Your task to perform on an android device: open app "DoorDash - Food Delivery" (install if not already installed) Image 0: 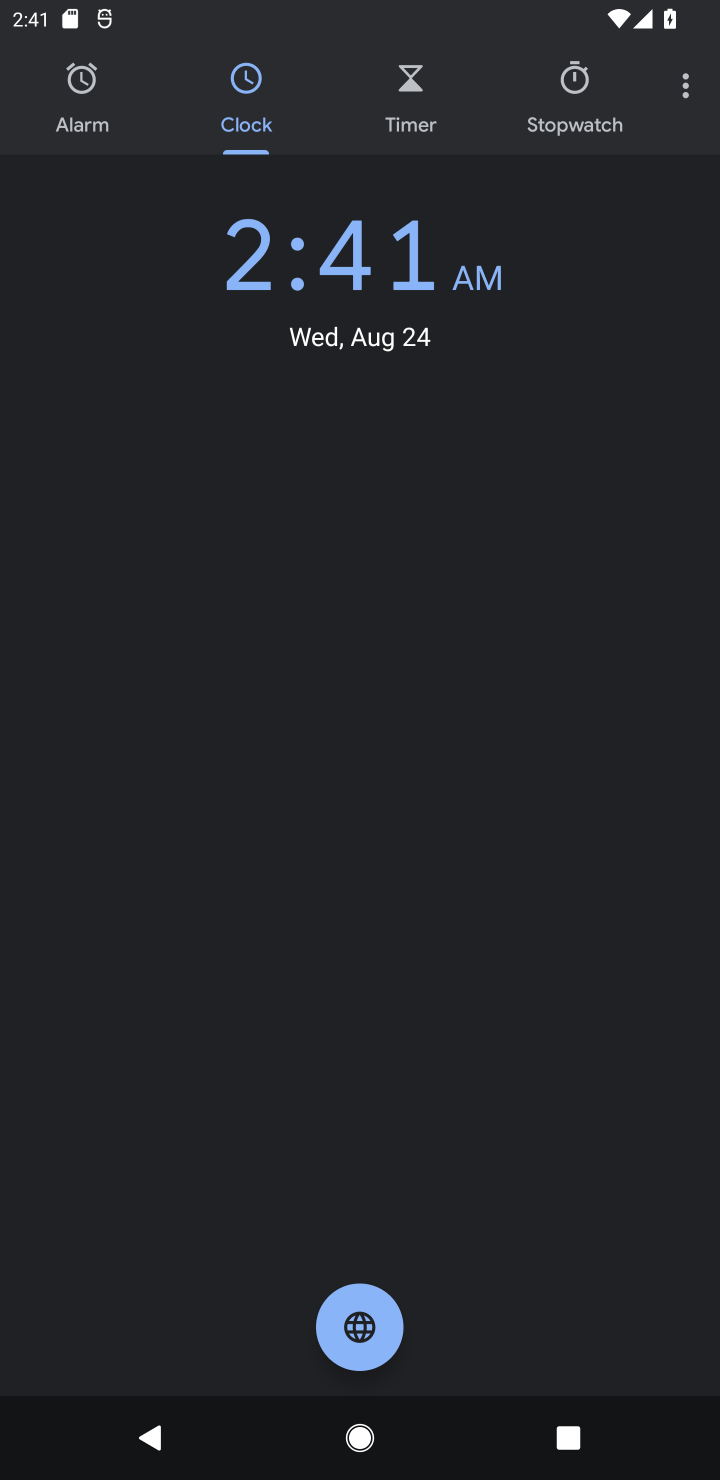
Step 0: press home button
Your task to perform on an android device: open app "DoorDash - Food Delivery" (install if not already installed) Image 1: 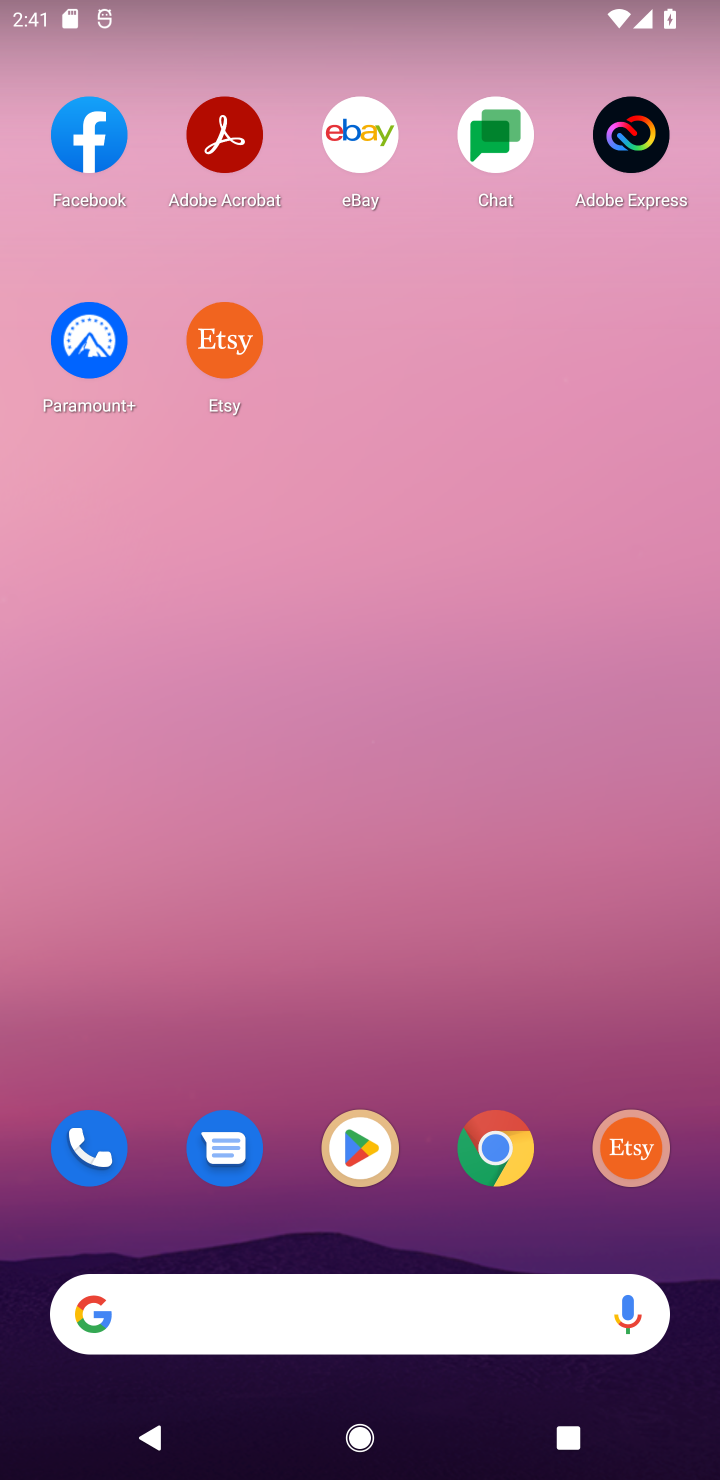
Step 1: drag from (278, 1139) to (324, 398)
Your task to perform on an android device: open app "DoorDash - Food Delivery" (install if not already installed) Image 2: 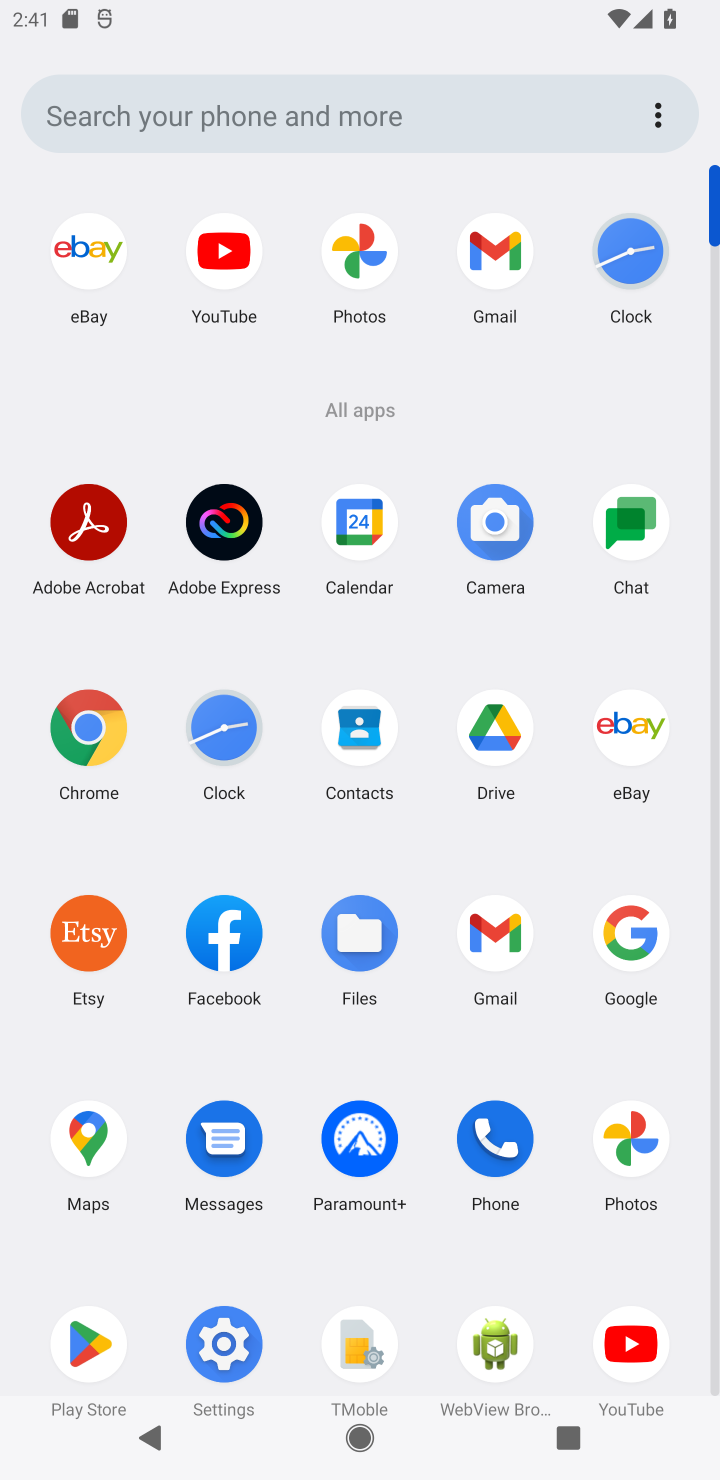
Step 2: click (97, 1343)
Your task to perform on an android device: open app "DoorDash - Food Delivery" (install if not already installed) Image 3: 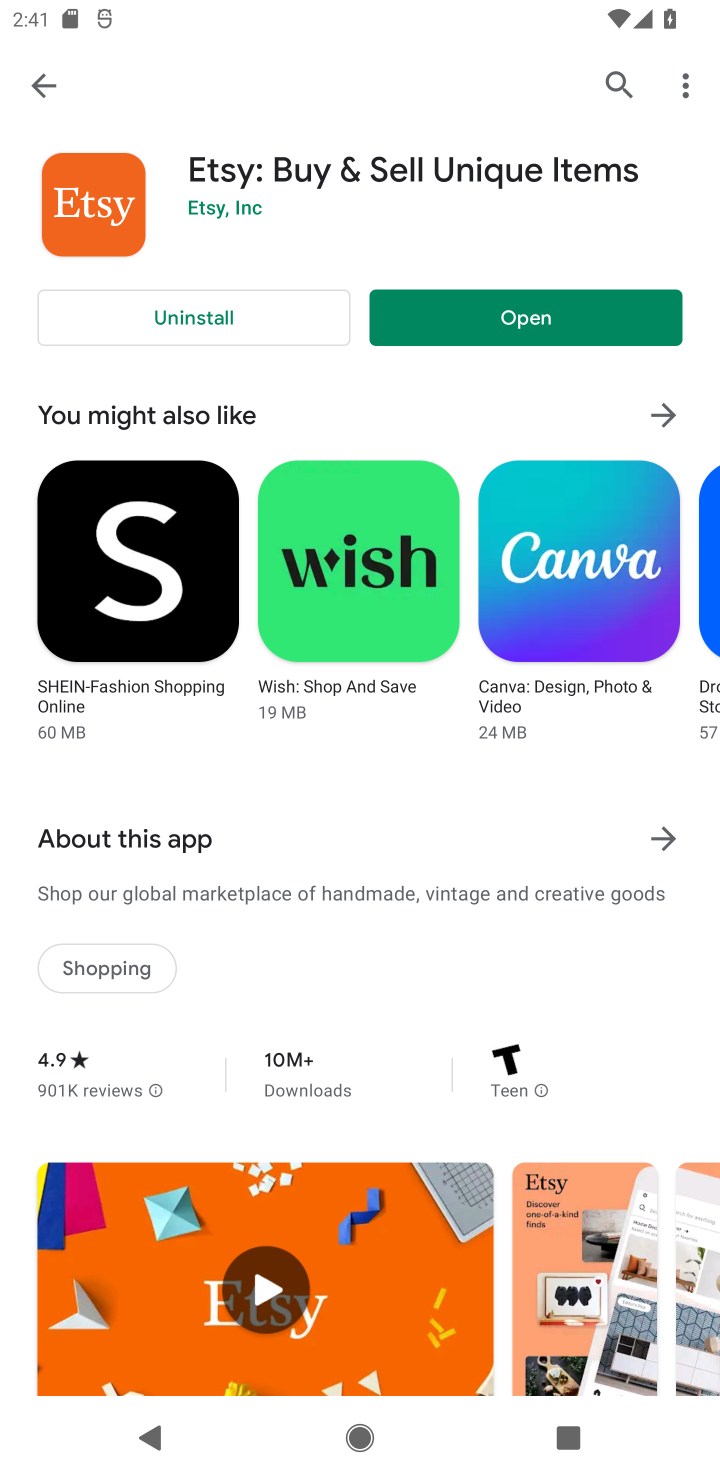
Step 3: click (45, 62)
Your task to perform on an android device: open app "DoorDash - Food Delivery" (install if not already installed) Image 4: 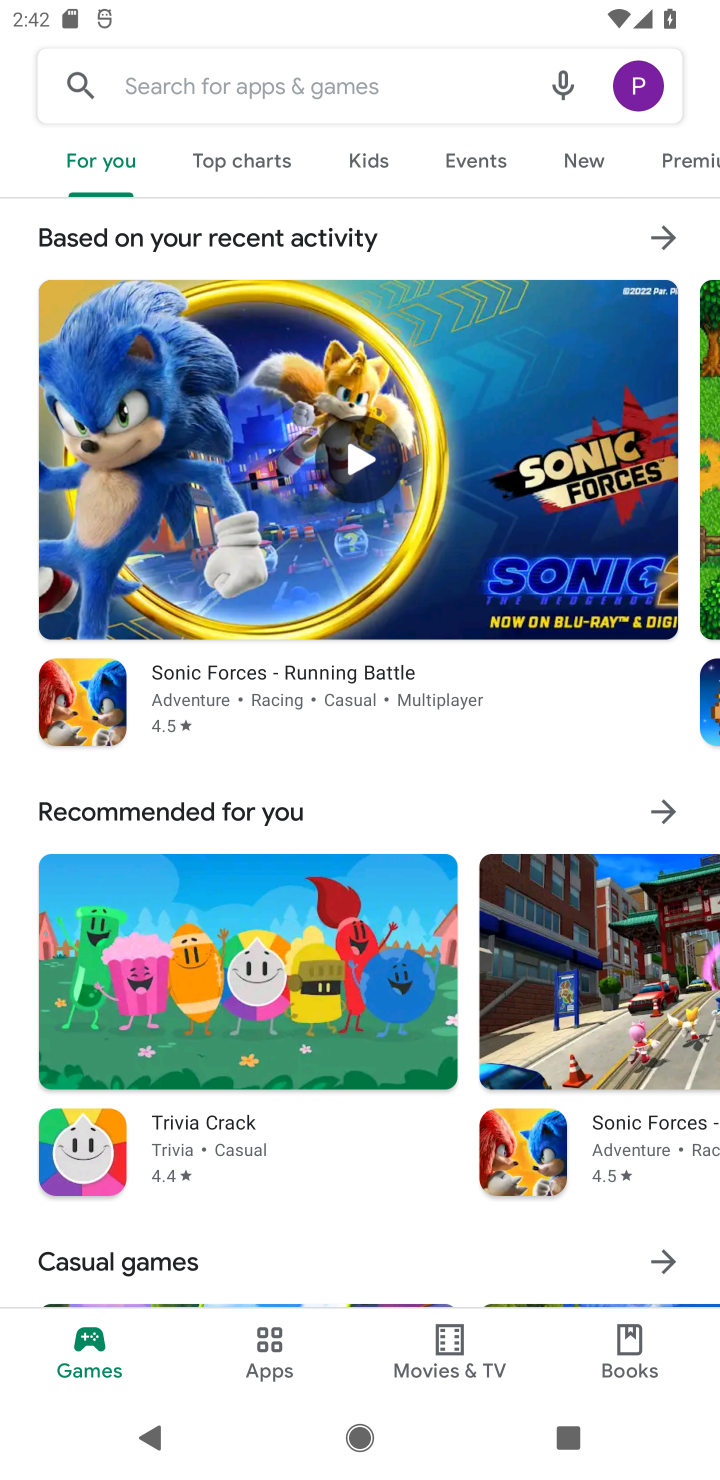
Step 4: click (245, 79)
Your task to perform on an android device: open app "DoorDash - Food Delivery" (install if not already installed) Image 5: 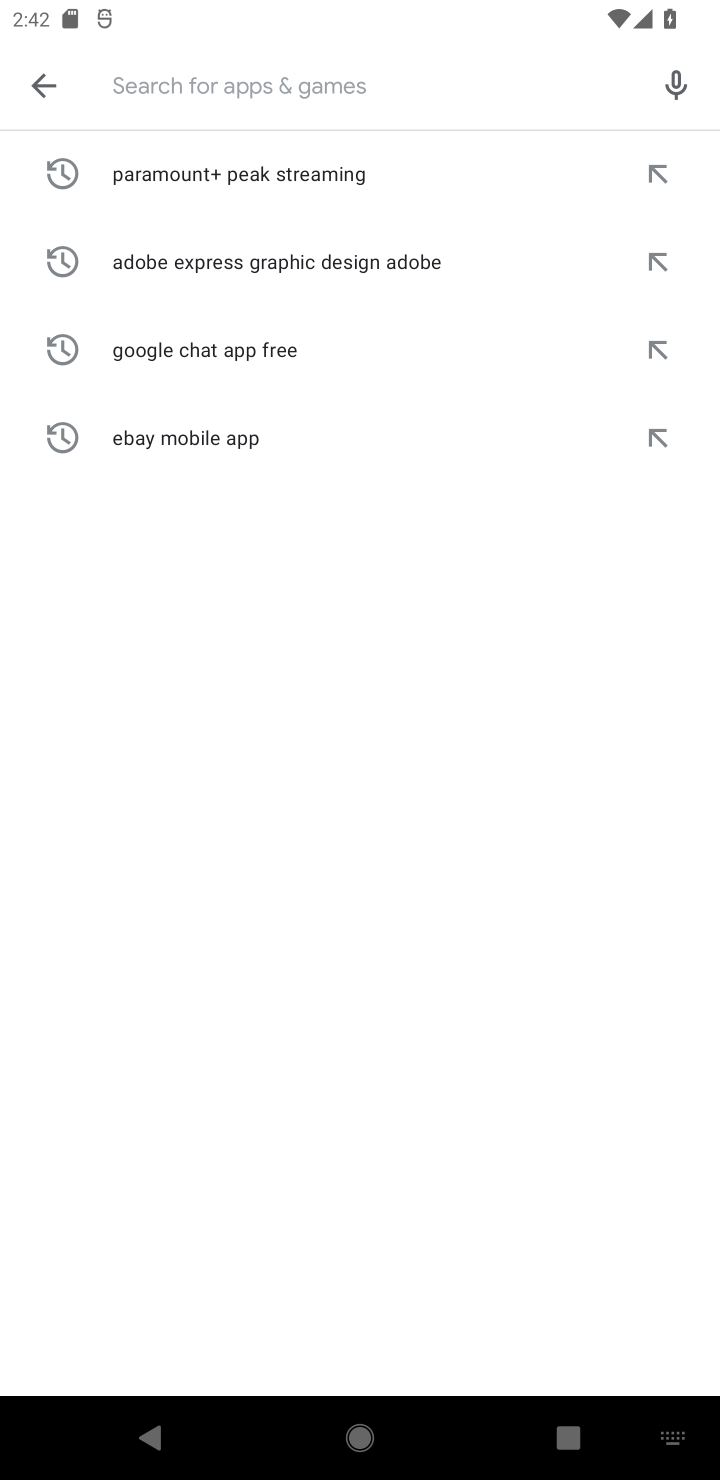
Step 5: type "DoorDash - Food Delivery "
Your task to perform on an android device: open app "DoorDash - Food Delivery" (install if not already installed) Image 6: 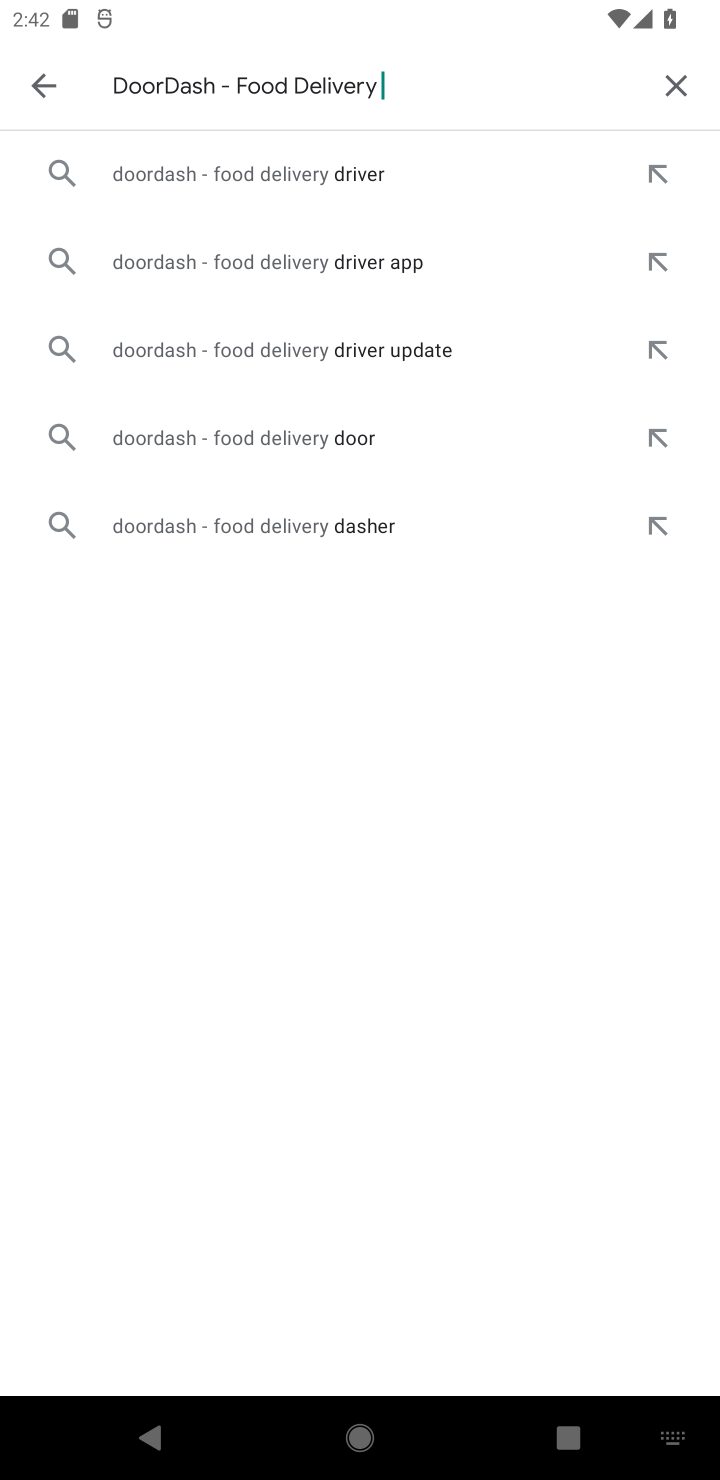
Step 6: click (271, 190)
Your task to perform on an android device: open app "DoorDash - Food Delivery" (install if not already installed) Image 7: 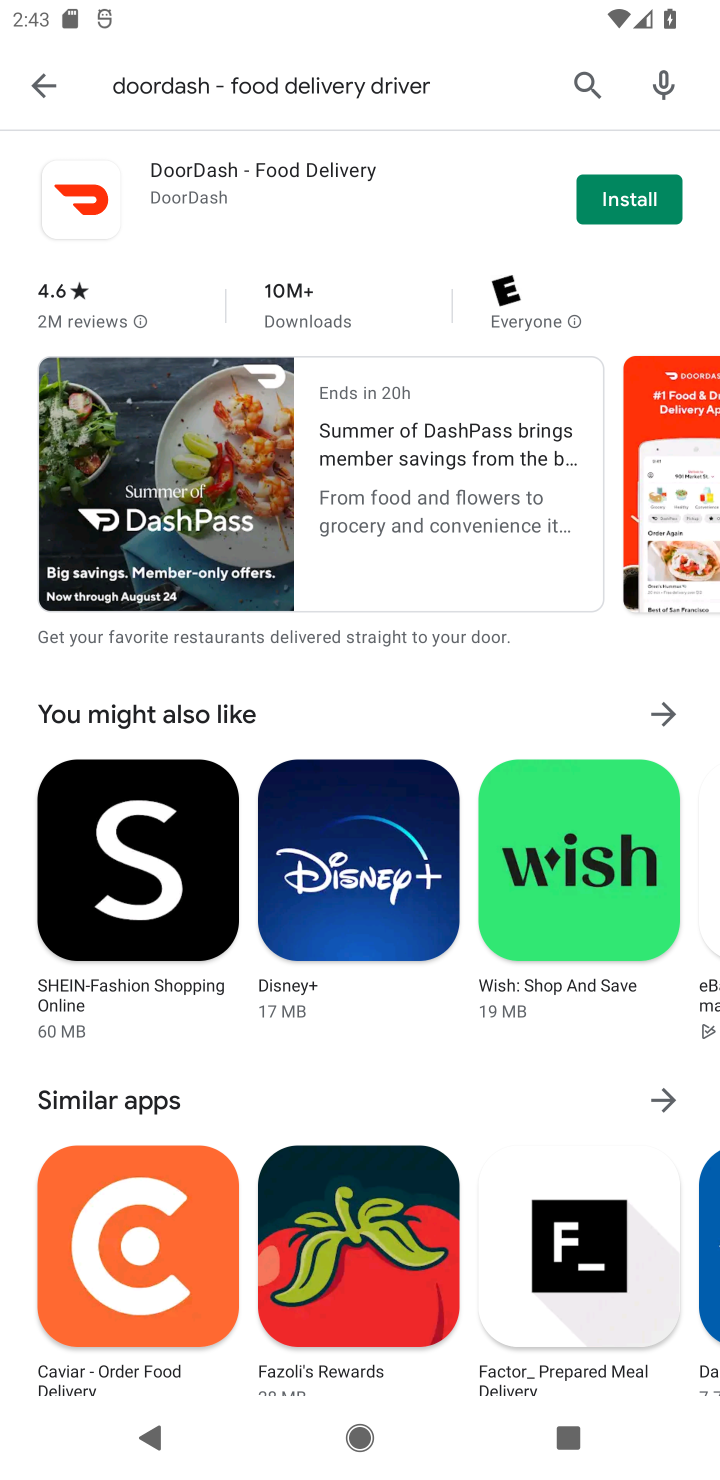
Step 7: click (583, 195)
Your task to perform on an android device: open app "DoorDash - Food Delivery" (install if not already installed) Image 8: 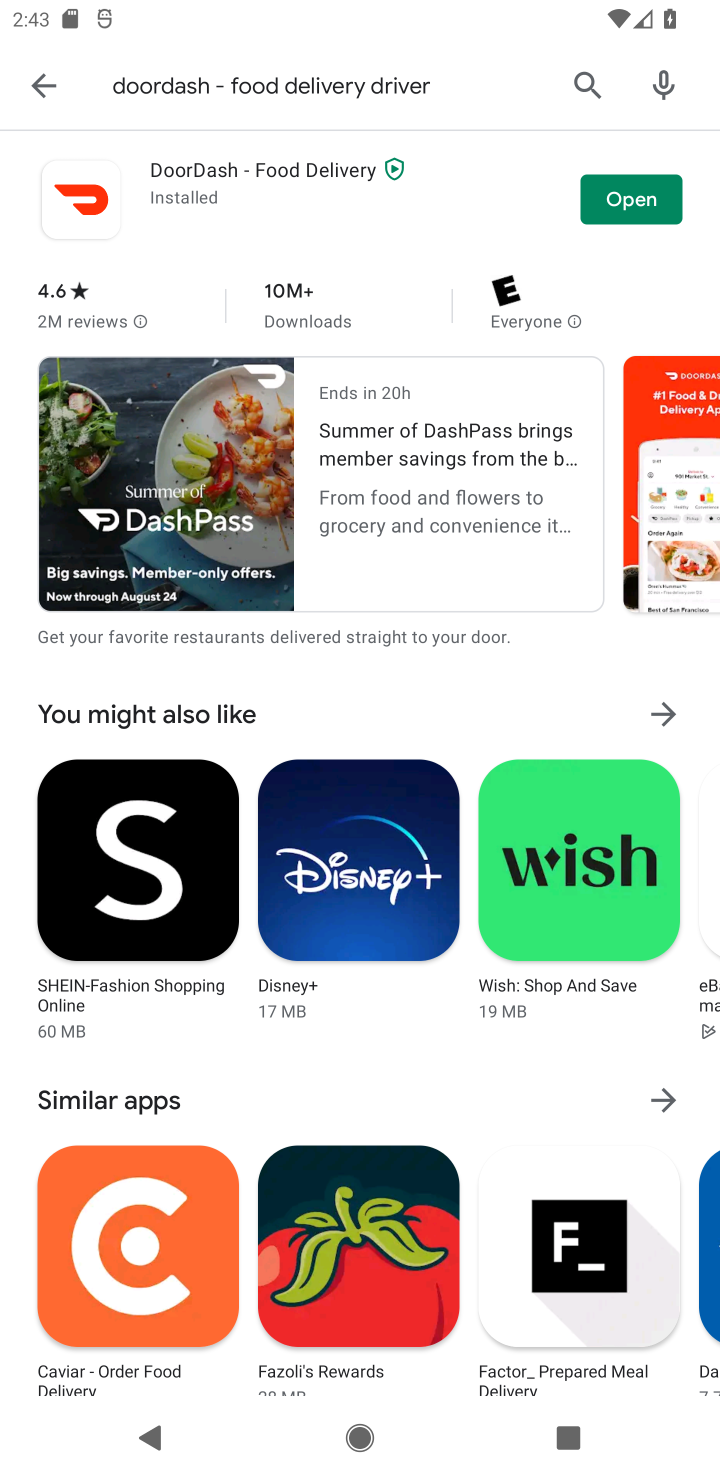
Step 8: click (615, 209)
Your task to perform on an android device: open app "DoorDash - Food Delivery" (install if not already installed) Image 9: 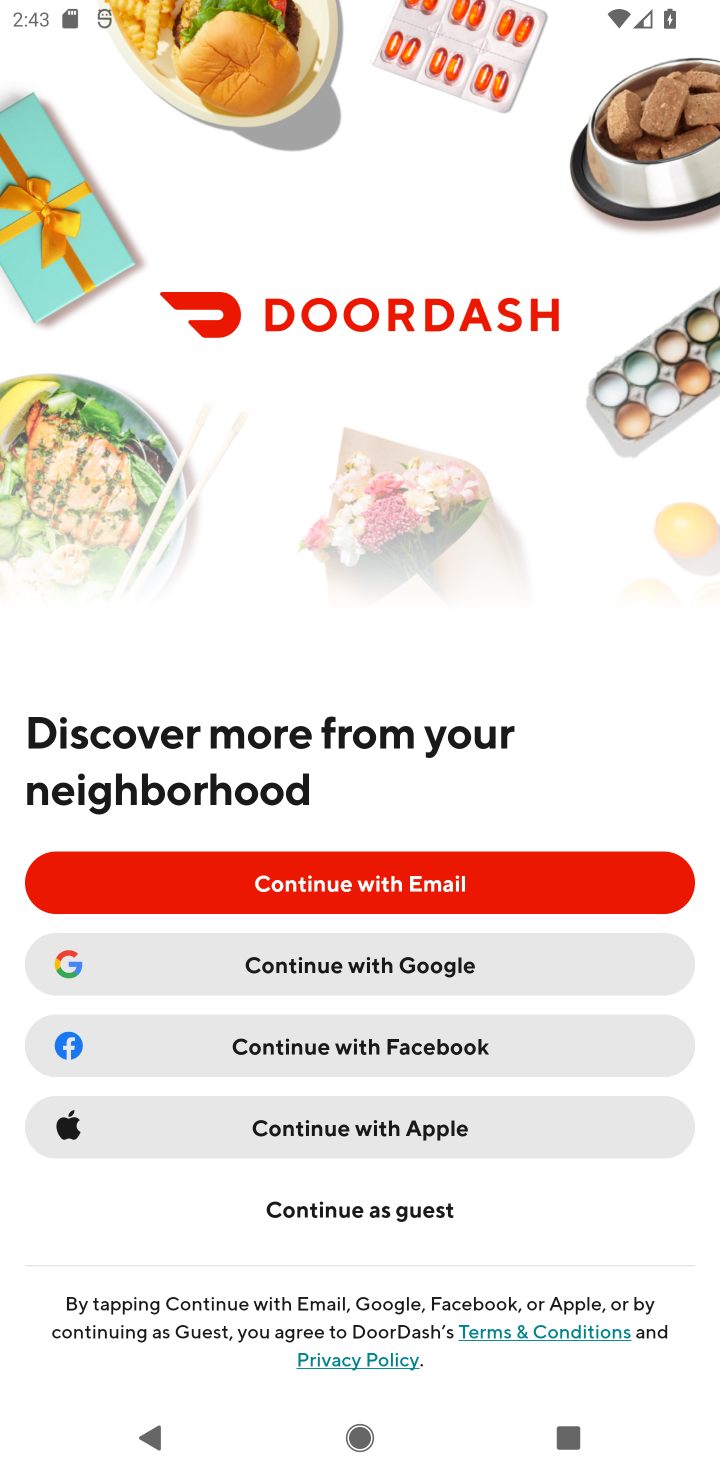
Step 9: task complete